Your task to perform on an android device: Go to Android settings Image 0: 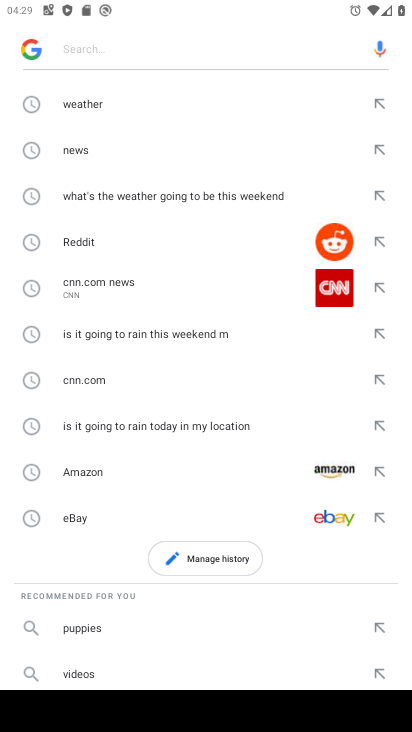
Step 0: press home button
Your task to perform on an android device: Go to Android settings Image 1: 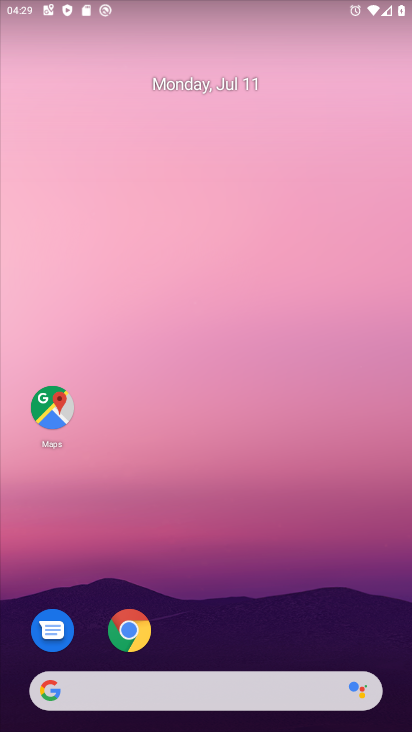
Step 1: drag from (203, 650) to (252, 50)
Your task to perform on an android device: Go to Android settings Image 2: 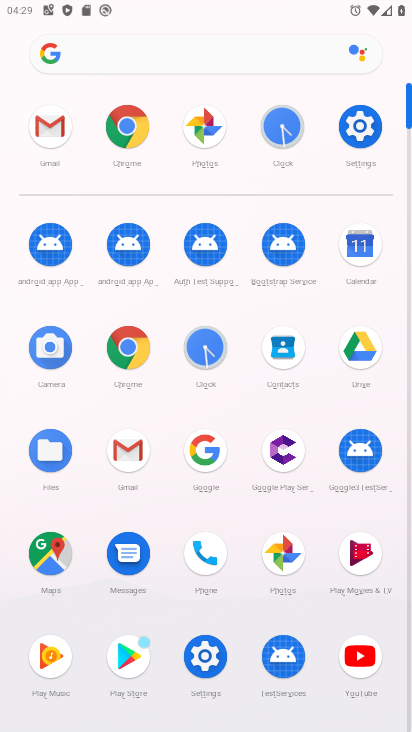
Step 2: click (358, 117)
Your task to perform on an android device: Go to Android settings Image 3: 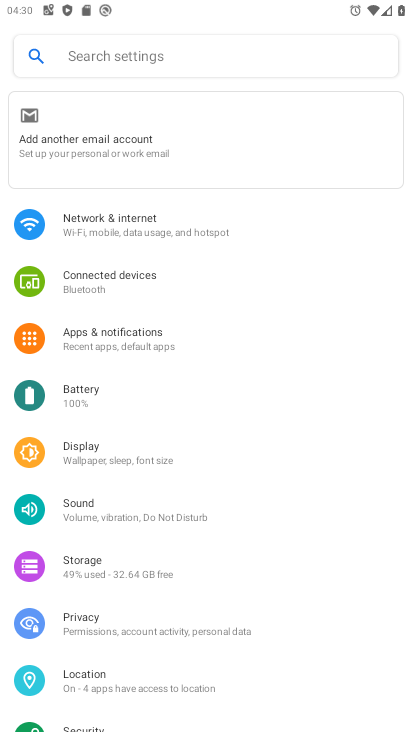
Step 3: drag from (157, 653) to (194, 39)
Your task to perform on an android device: Go to Android settings Image 4: 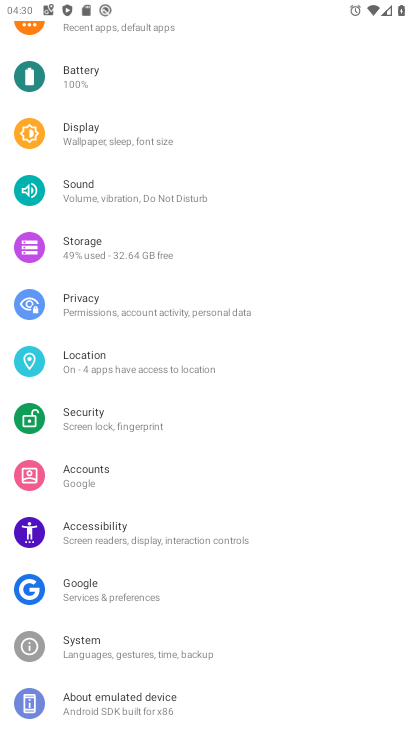
Step 4: click (186, 707)
Your task to perform on an android device: Go to Android settings Image 5: 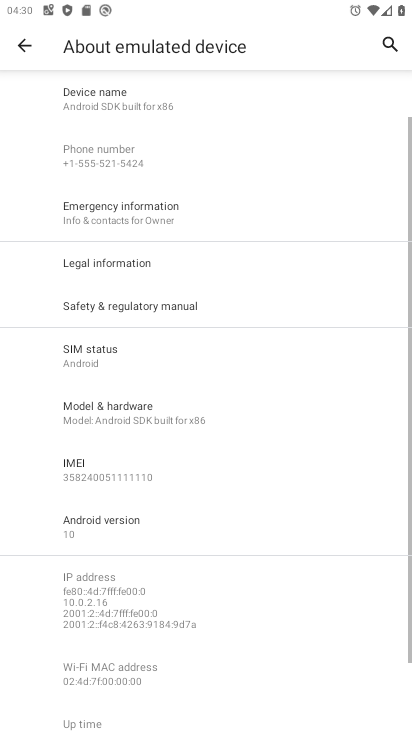
Step 5: task complete